Your task to perform on an android device: change keyboard looks Image 0: 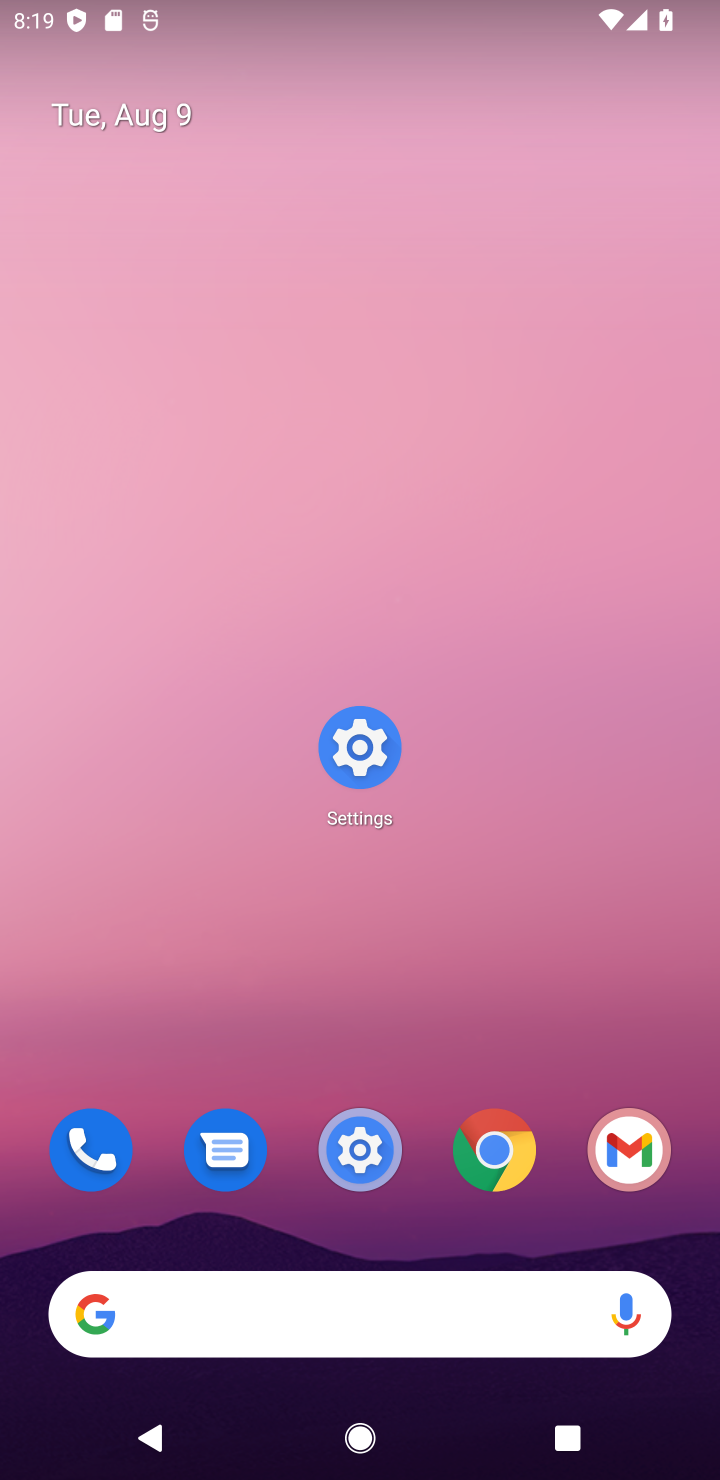
Step 0: press home button
Your task to perform on an android device: change keyboard looks Image 1: 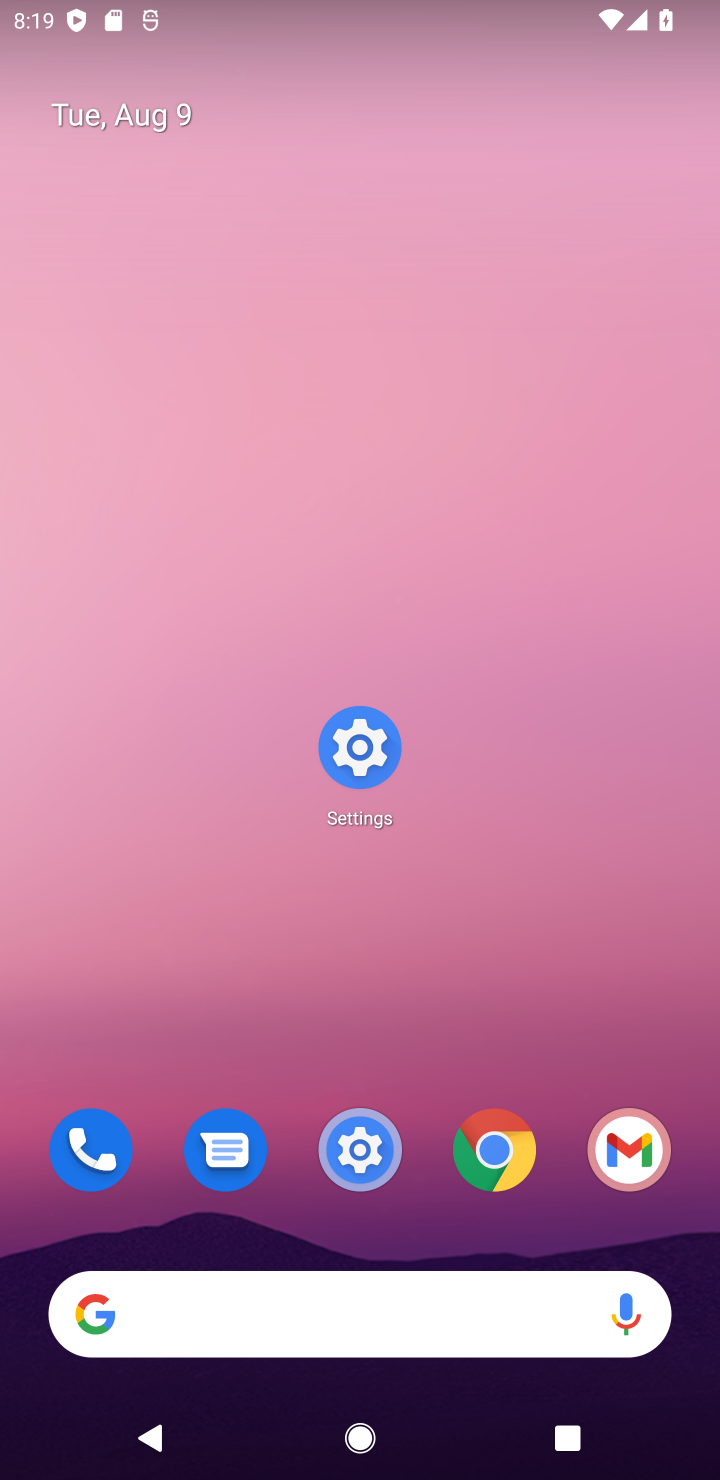
Step 1: click (365, 757)
Your task to perform on an android device: change keyboard looks Image 2: 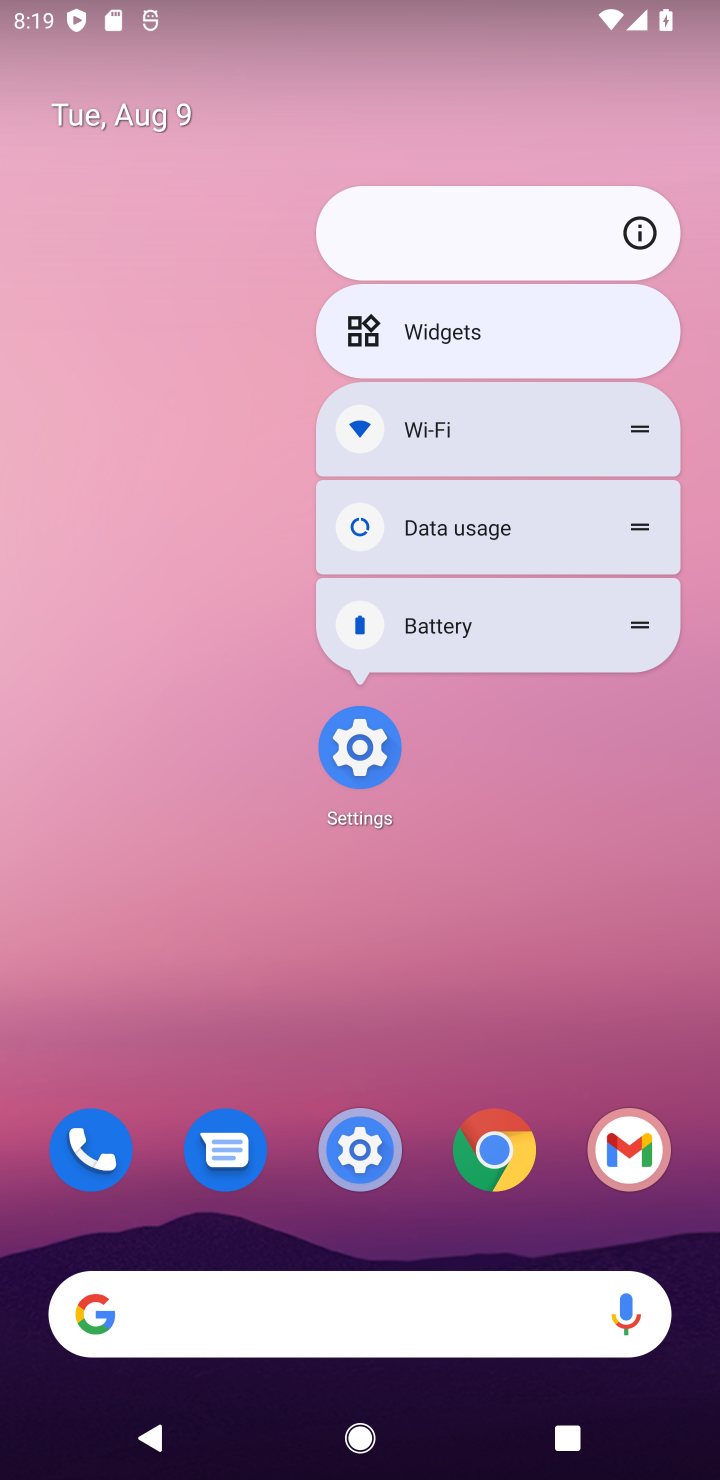
Step 2: click (365, 757)
Your task to perform on an android device: change keyboard looks Image 3: 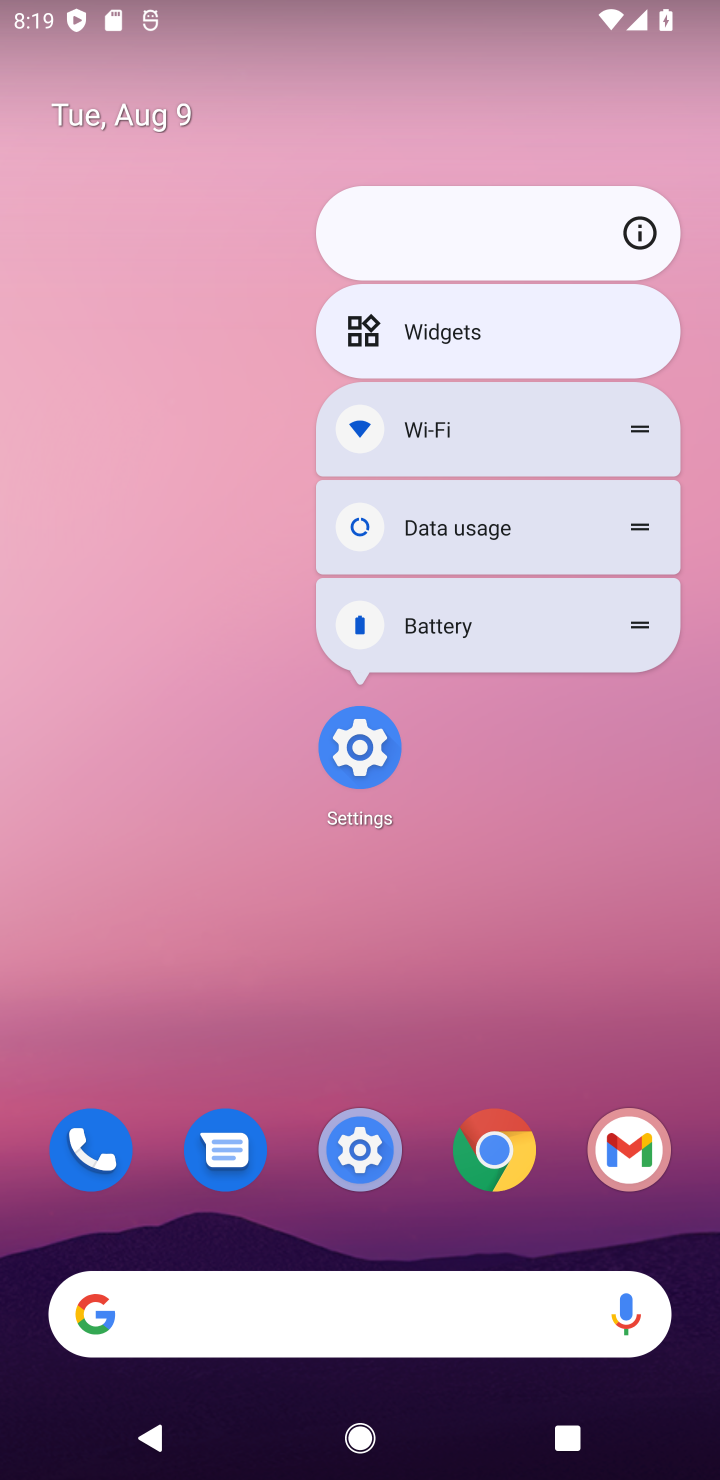
Step 3: click (365, 766)
Your task to perform on an android device: change keyboard looks Image 4: 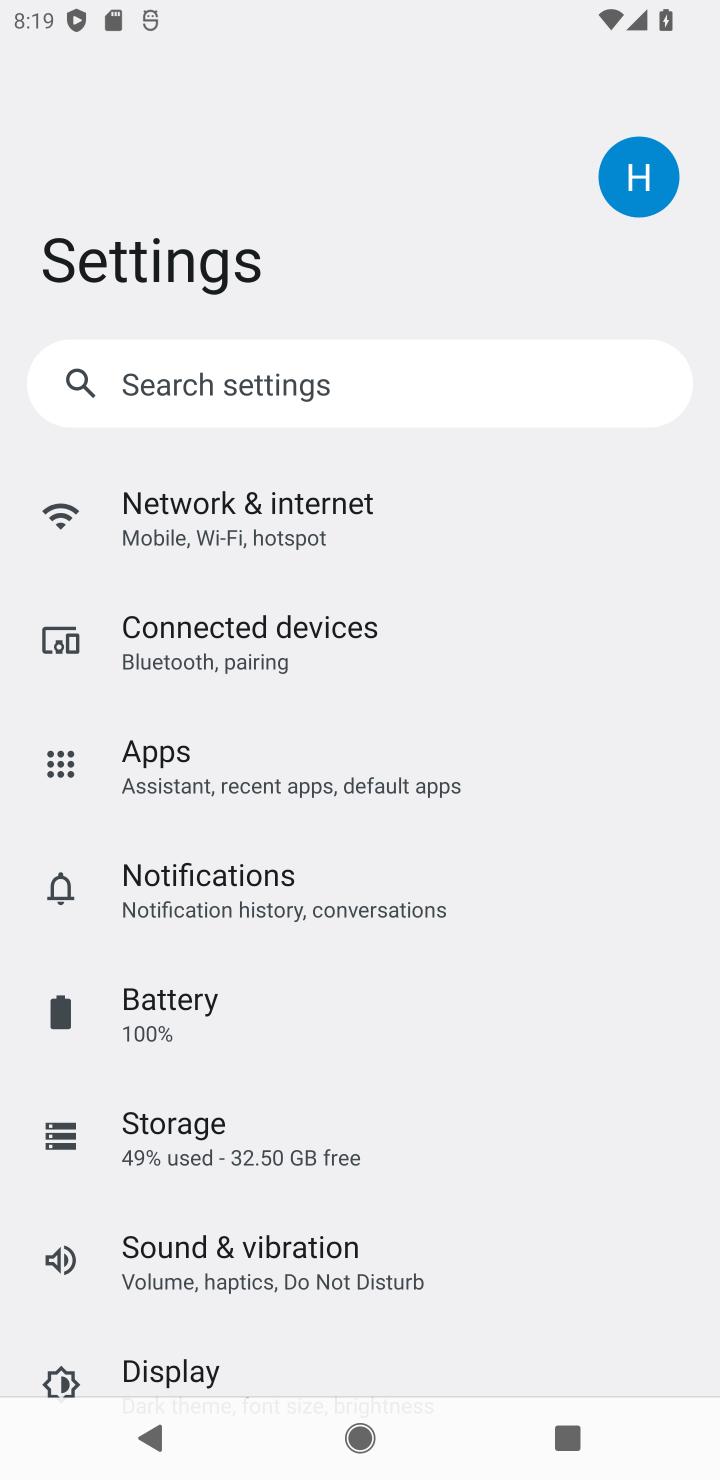
Step 4: drag from (369, 1217) to (704, 238)
Your task to perform on an android device: change keyboard looks Image 5: 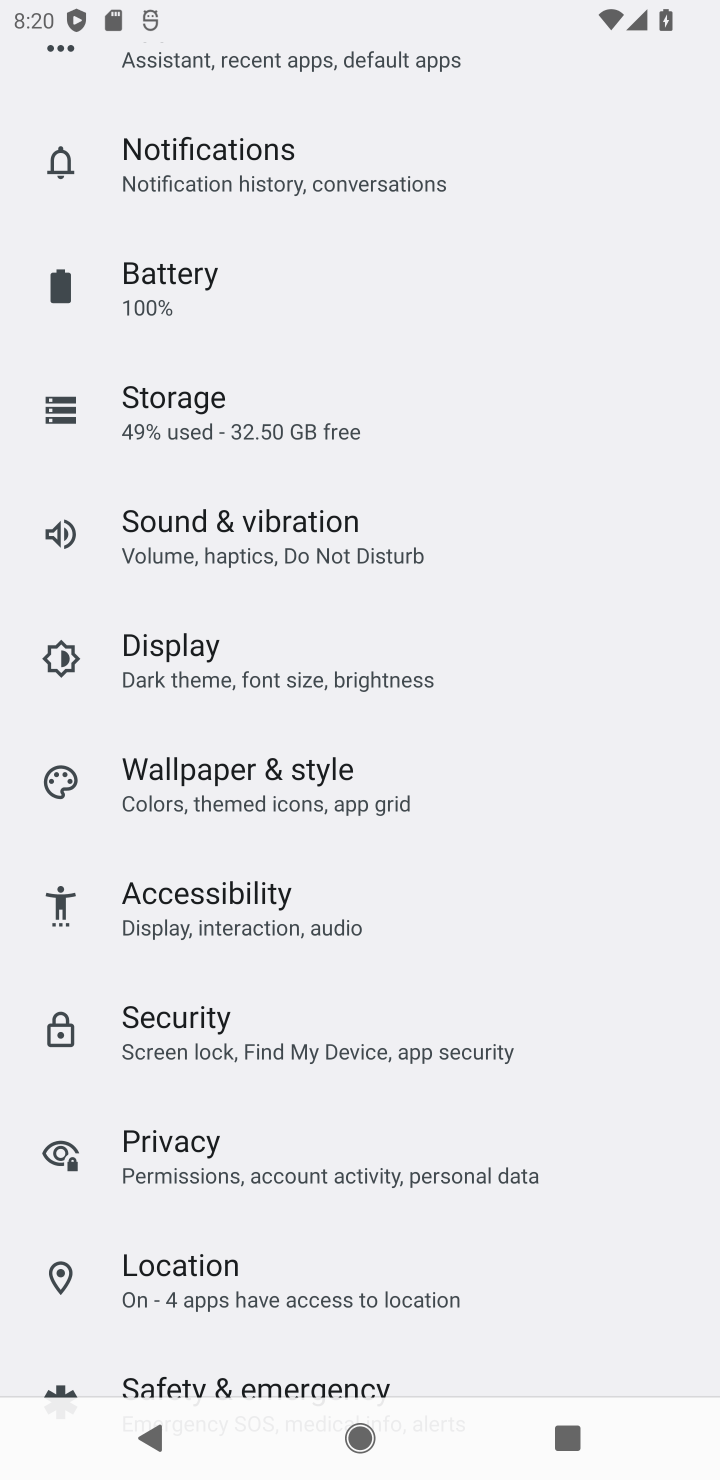
Step 5: drag from (374, 1322) to (684, 156)
Your task to perform on an android device: change keyboard looks Image 6: 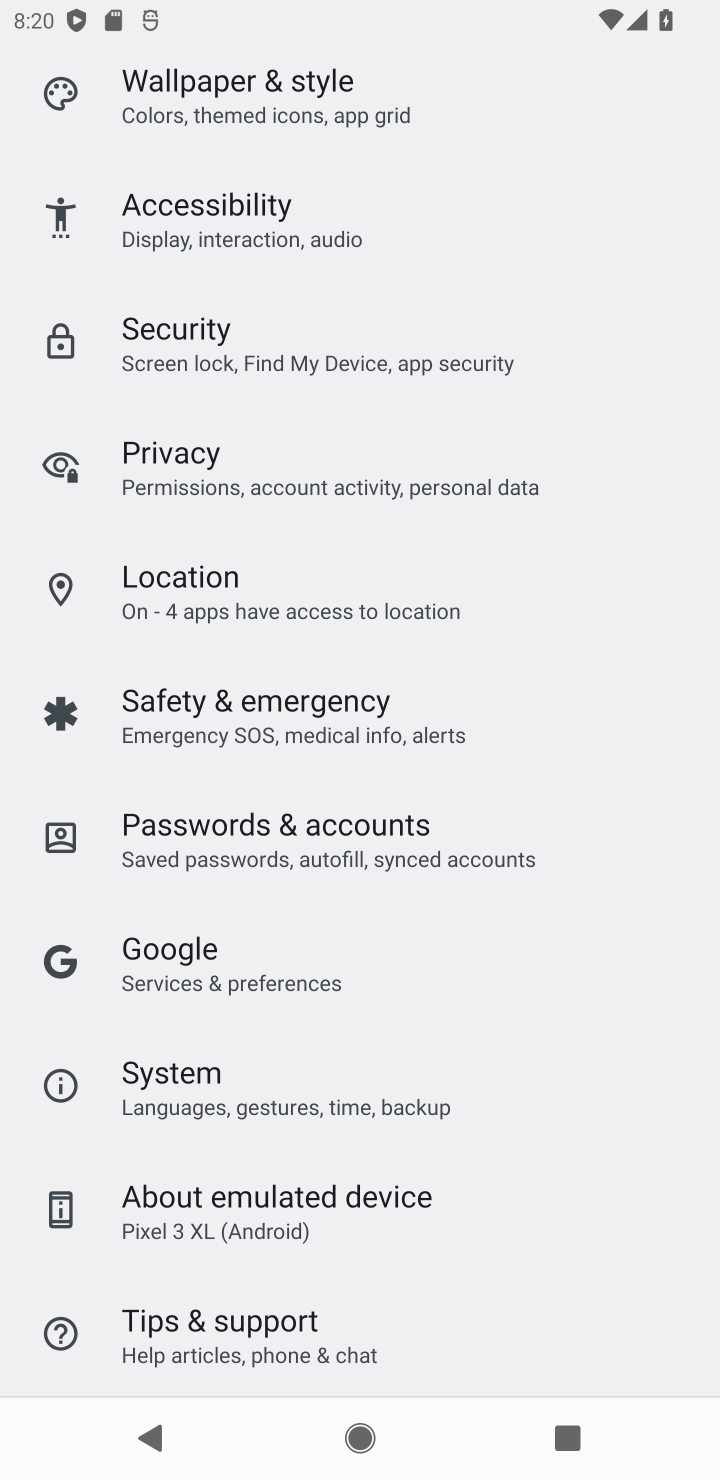
Step 6: click (248, 1106)
Your task to perform on an android device: change keyboard looks Image 7: 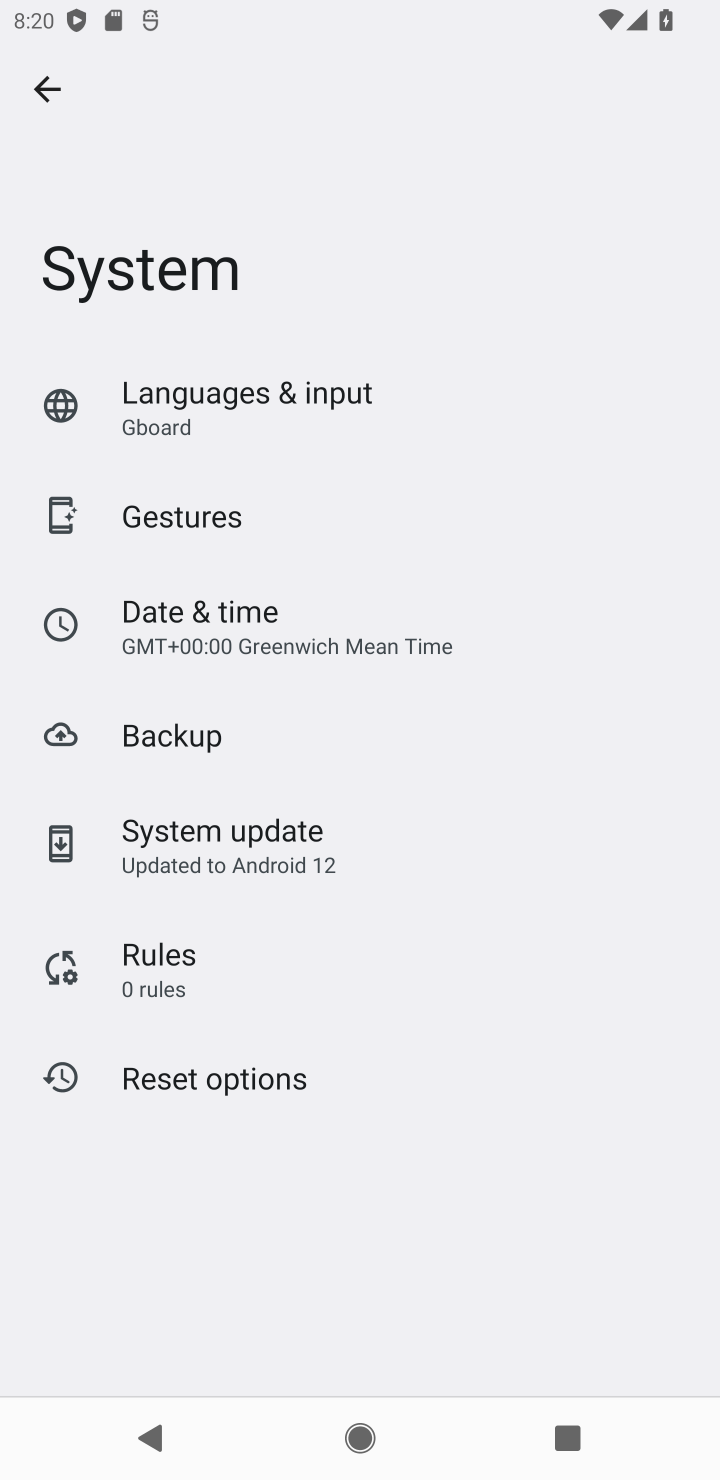
Step 7: click (251, 382)
Your task to perform on an android device: change keyboard looks Image 8: 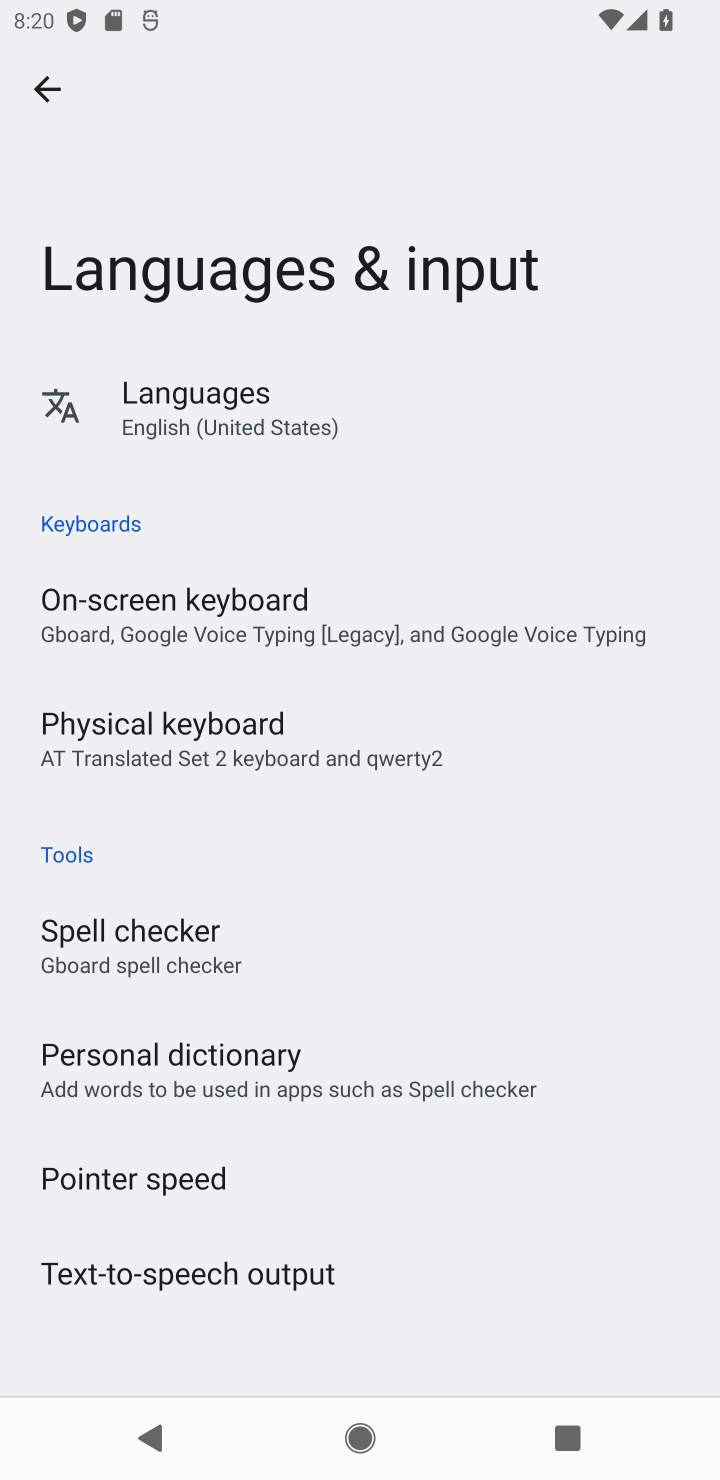
Step 8: click (321, 622)
Your task to perform on an android device: change keyboard looks Image 9: 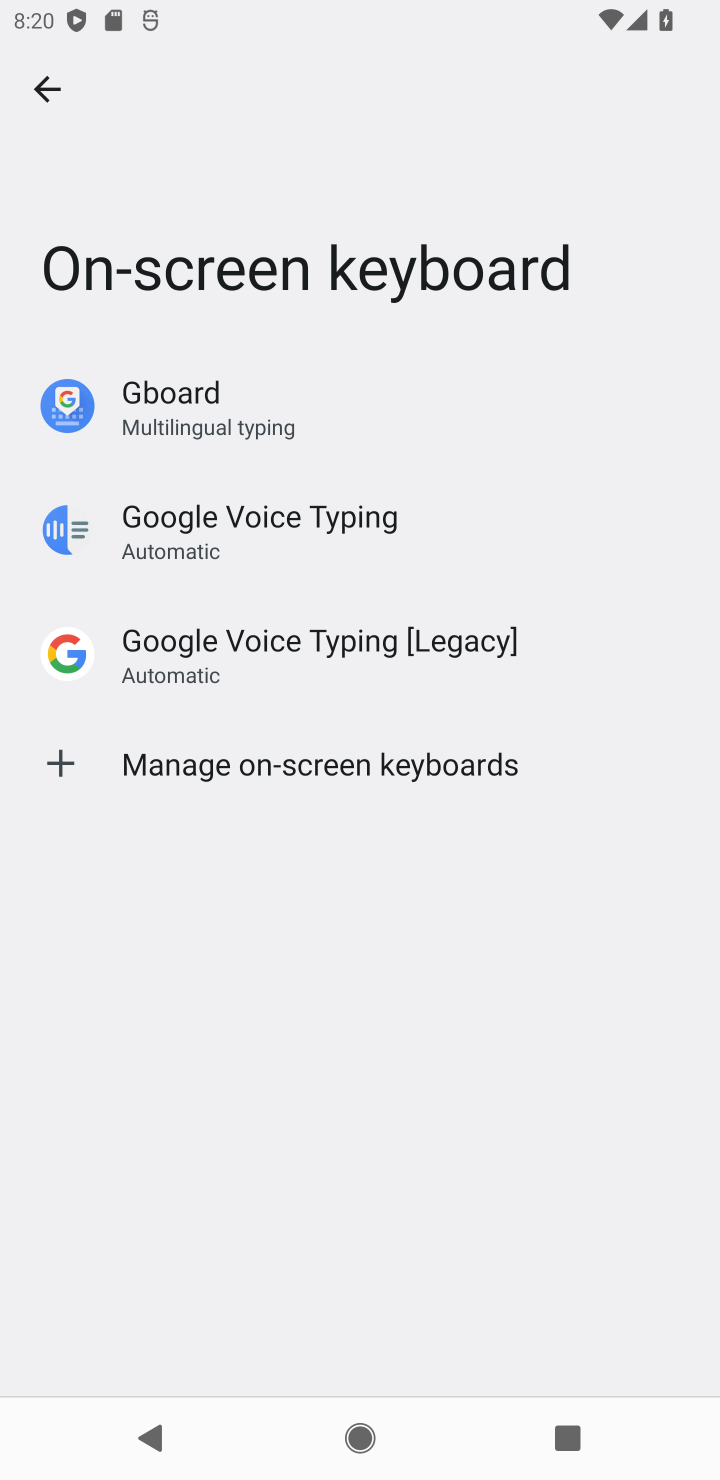
Step 9: click (202, 409)
Your task to perform on an android device: change keyboard looks Image 10: 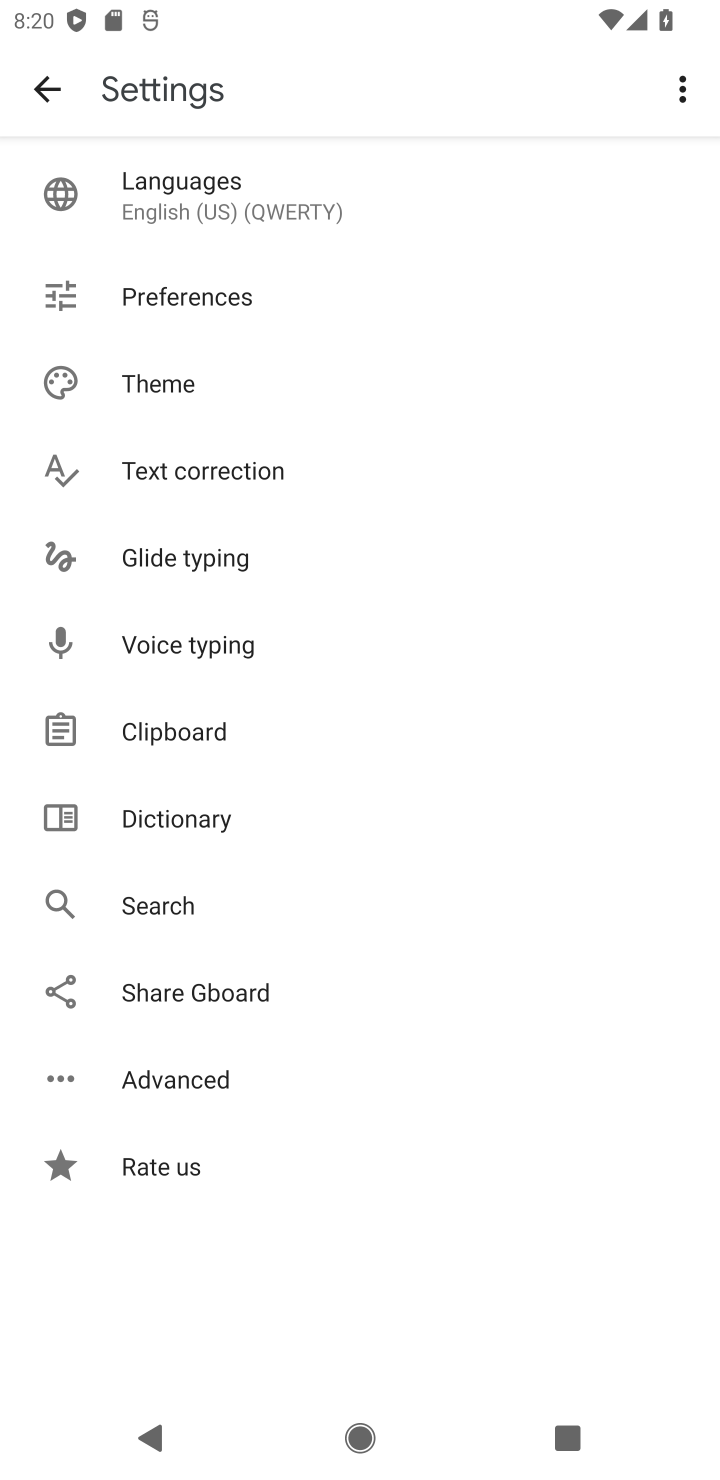
Step 10: click (152, 369)
Your task to perform on an android device: change keyboard looks Image 11: 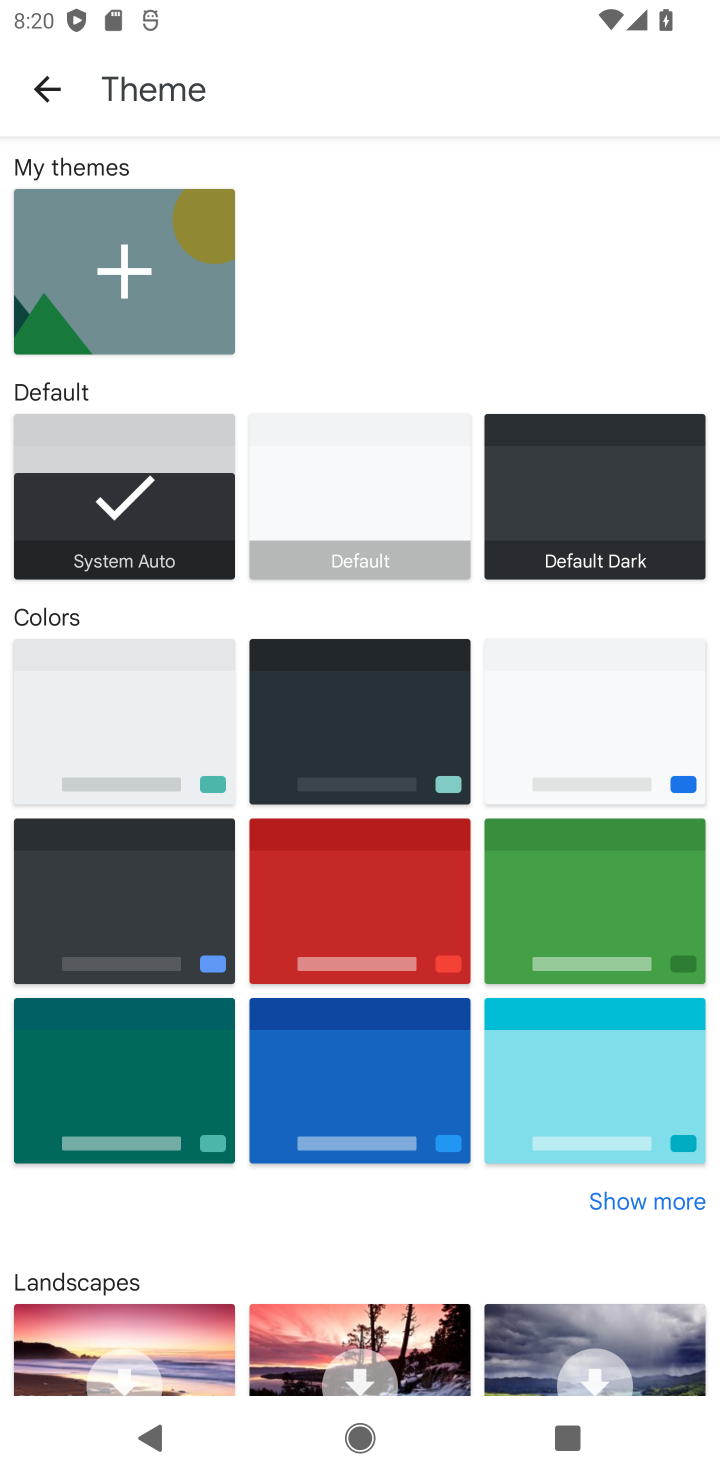
Step 11: click (391, 1077)
Your task to perform on an android device: change keyboard looks Image 12: 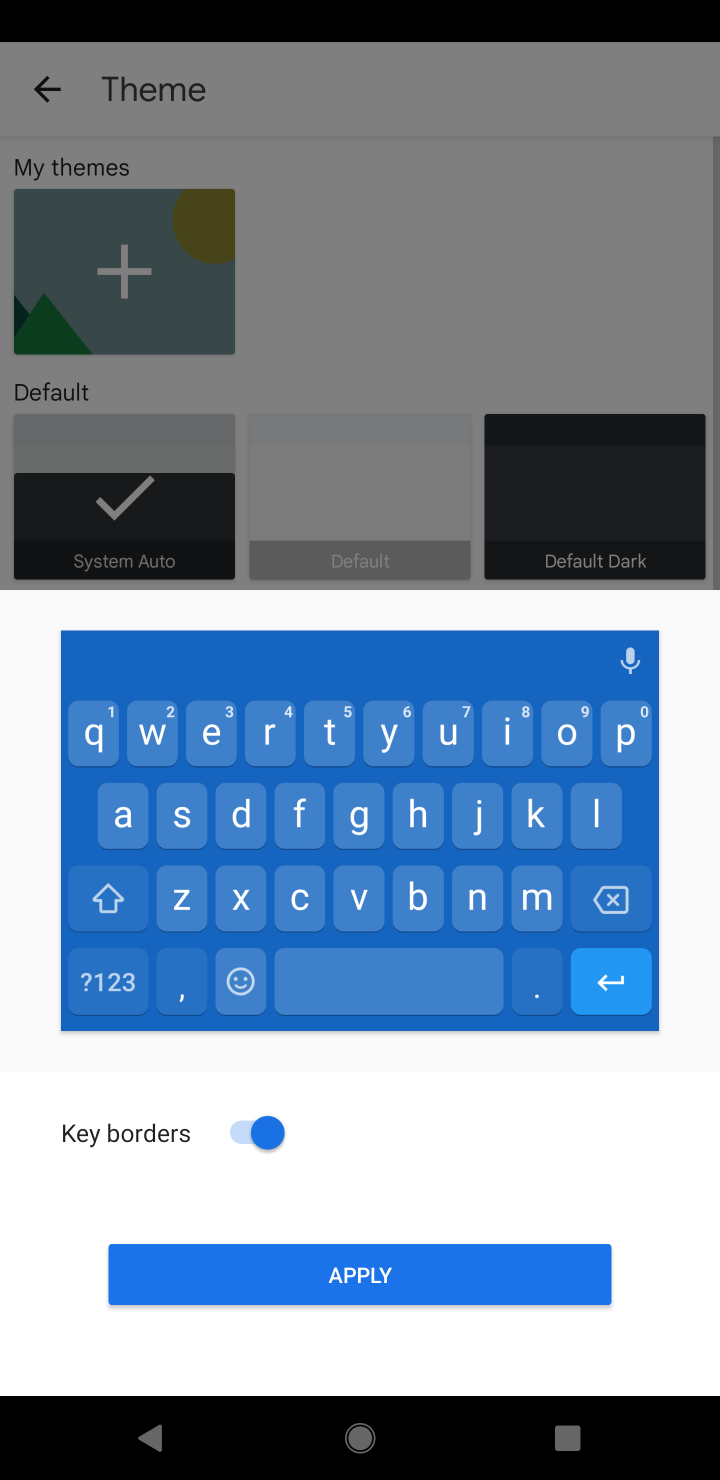
Step 12: click (392, 1260)
Your task to perform on an android device: change keyboard looks Image 13: 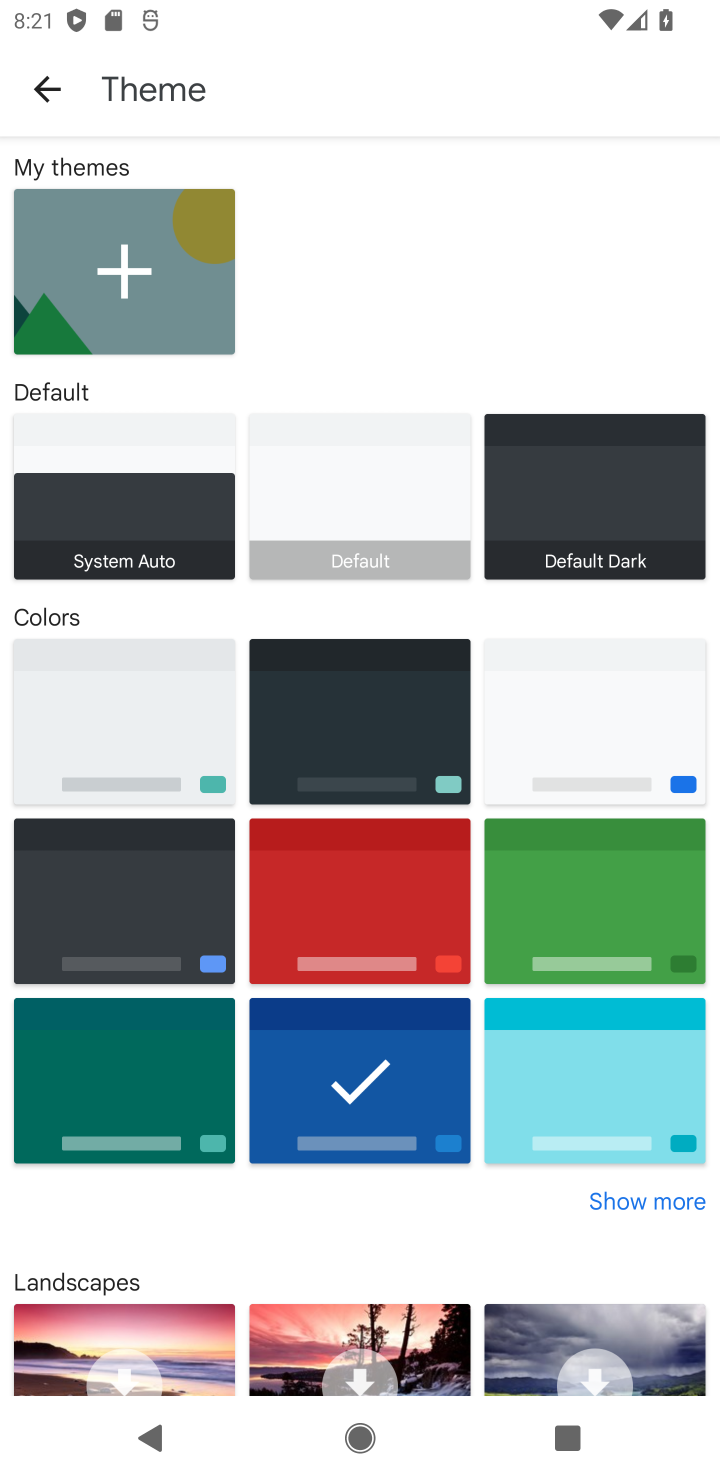
Step 13: task complete